Your task to perform on an android device: Search for Mexican restaurants on Maps Image 0: 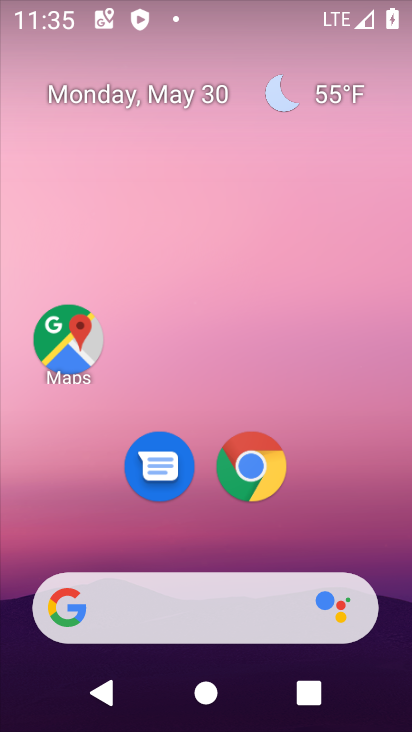
Step 0: click (69, 330)
Your task to perform on an android device: Search for Mexican restaurants on Maps Image 1: 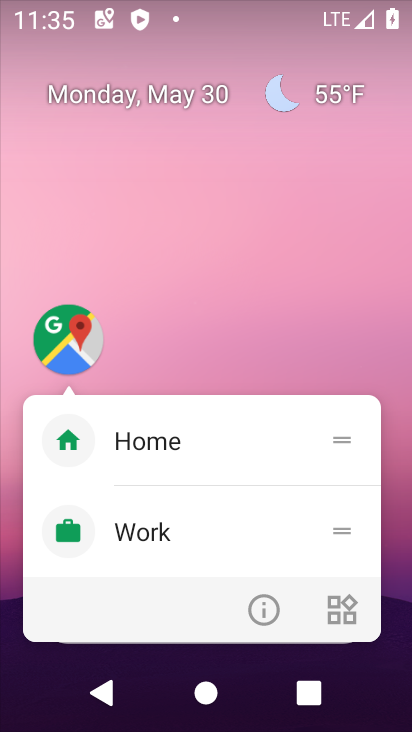
Step 1: click (68, 331)
Your task to perform on an android device: Search for Mexican restaurants on Maps Image 2: 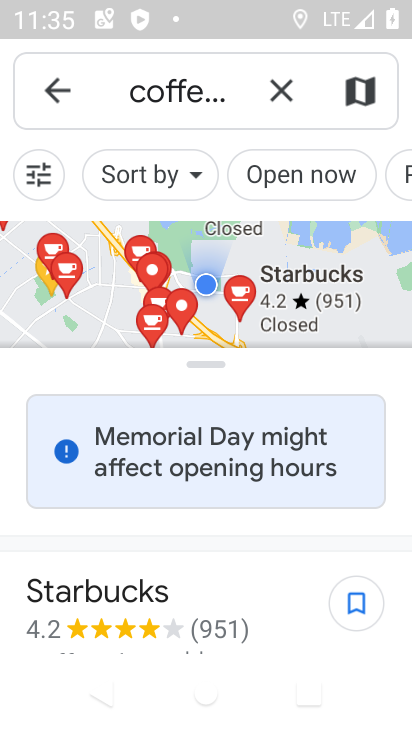
Step 2: click (292, 83)
Your task to perform on an android device: Search for Mexican restaurants on Maps Image 3: 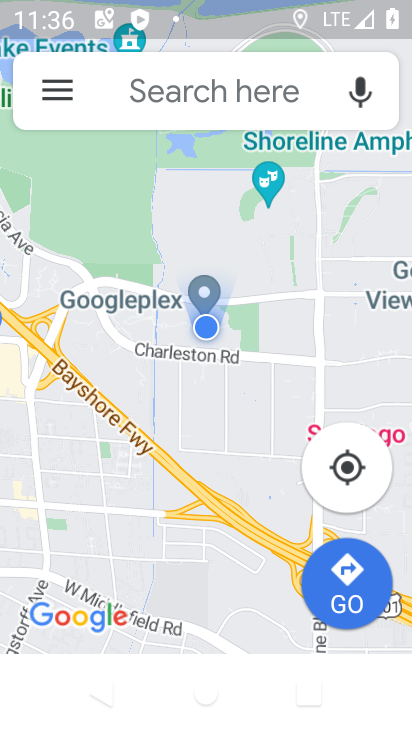
Step 3: click (285, 88)
Your task to perform on an android device: Search for Mexican restaurants on Maps Image 4: 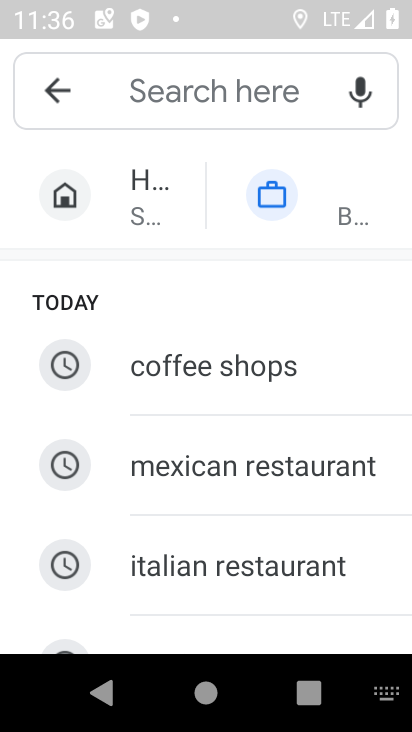
Step 4: click (301, 448)
Your task to perform on an android device: Search for Mexican restaurants on Maps Image 5: 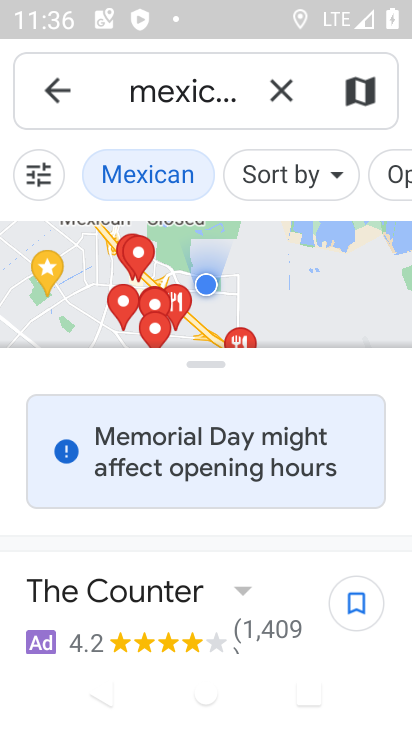
Step 5: task complete